Your task to perform on an android device: turn on improve location accuracy Image 0: 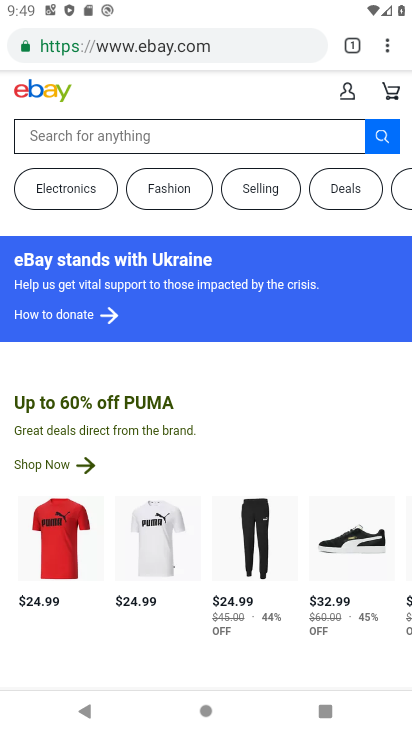
Step 0: press home button
Your task to perform on an android device: turn on improve location accuracy Image 1: 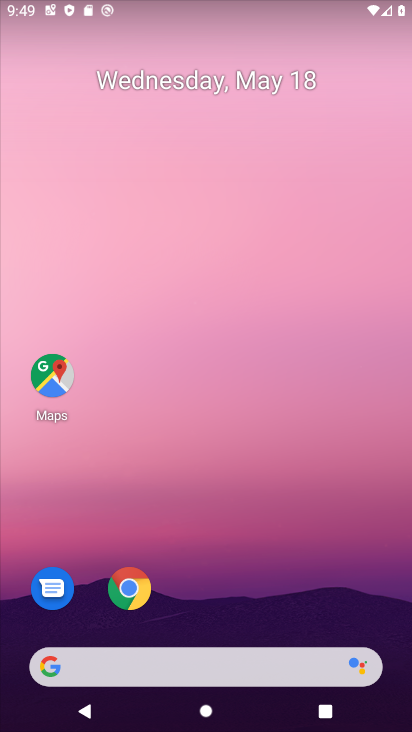
Step 1: drag from (260, 676) to (296, 214)
Your task to perform on an android device: turn on improve location accuracy Image 2: 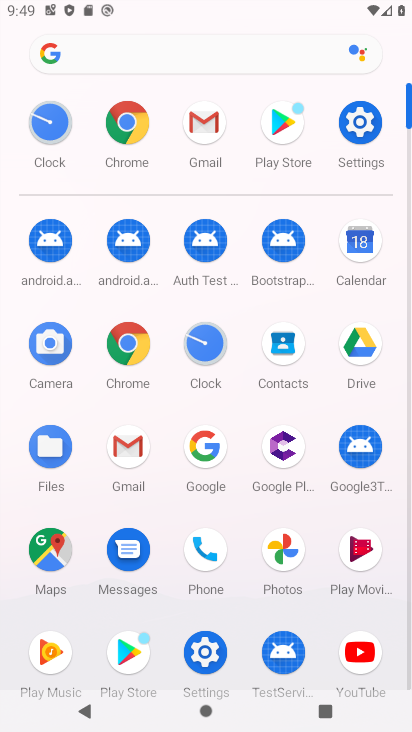
Step 2: click (364, 118)
Your task to perform on an android device: turn on improve location accuracy Image 3: 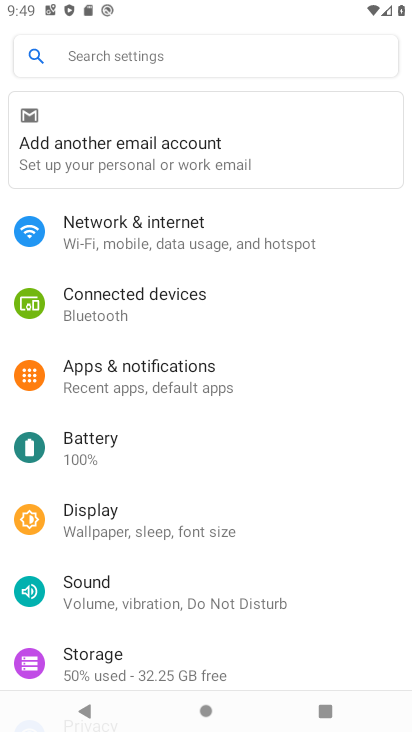
Step 3: click (200, 59)
Your task to perform on an android device: turn on improve location accuracy Image 4: 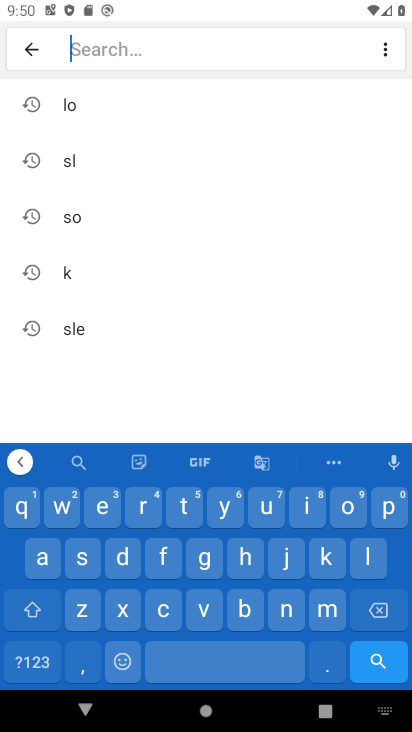
Step 4: click (81, 116)
Your task to perform on an android device: turn on improve location accuracy Image 5: 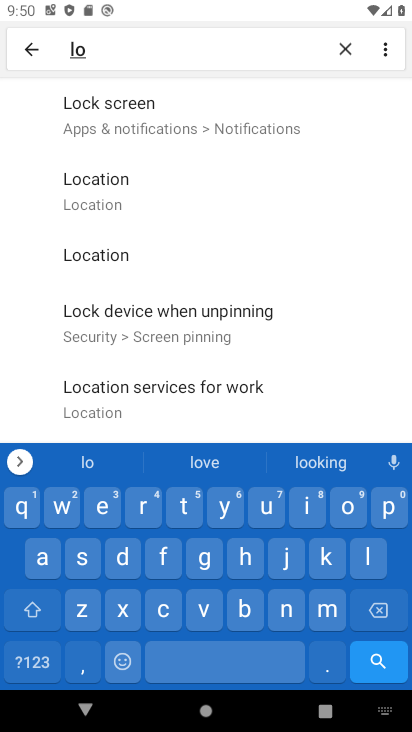
Step 5: click (111, 191)
Your task to perform on an android device: turn on improve location accuracy Image 6: 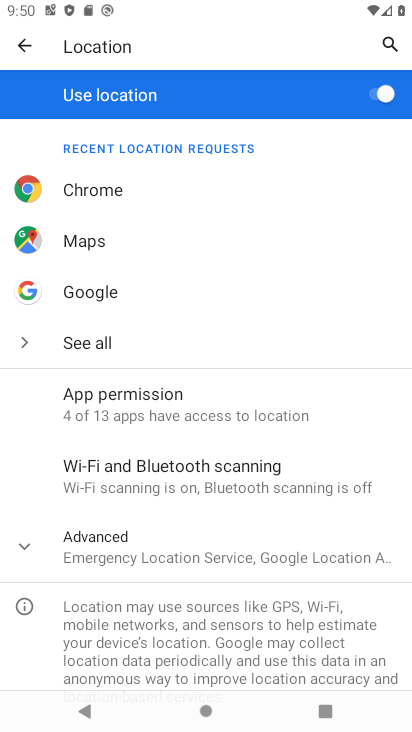
Step 6: click (14, 553)
Your task to perform on an android device: turn on improve location accuracy Image 7: 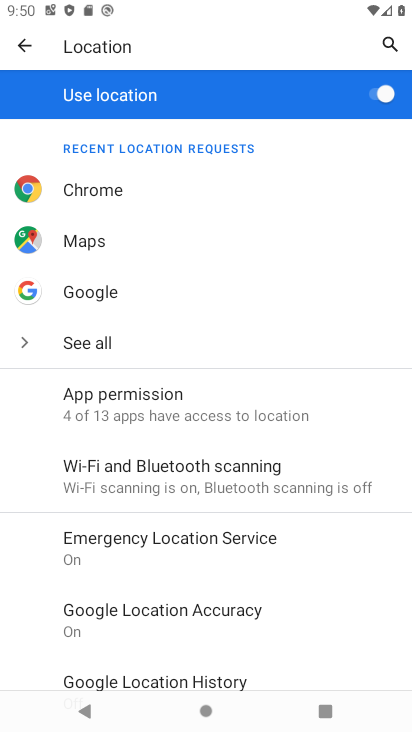
Step 7: click (210, 617)
Your task to perform on an android device: turn on improve location accuracy Image 8: 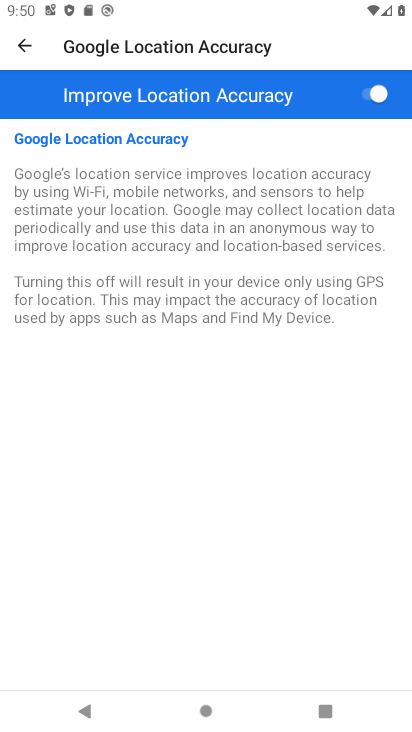
Step 8: click (356, 109)
Your task to perform on an android device: turn on improve location accuracy Image 9: 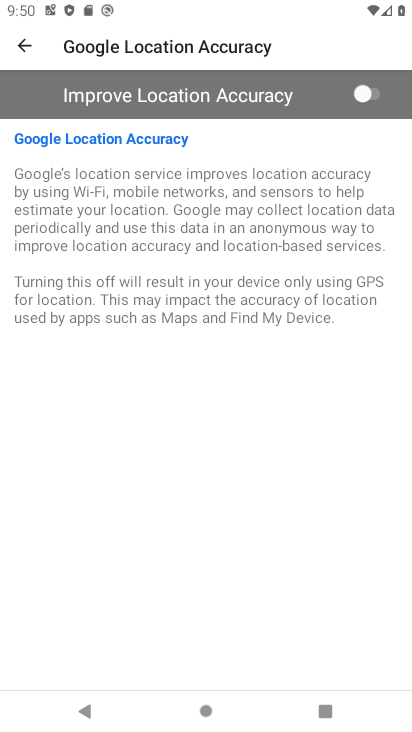
Step 9: click (356, 109)
Your task to perform on an android device: turn on improve location accuracy Image 10: 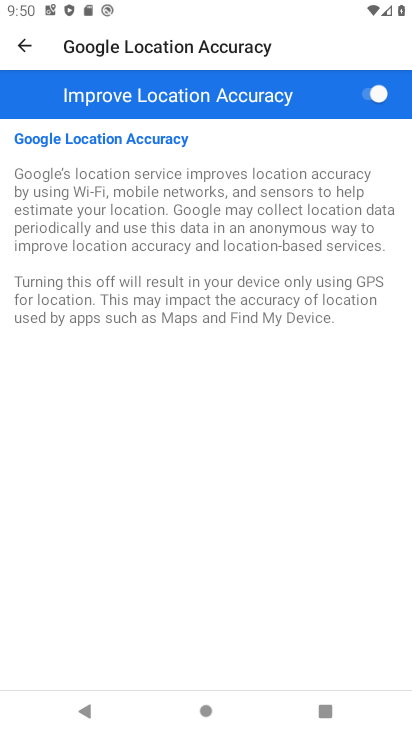
Step 10: task complete